Your task to perform on an android device: Go to Maps Image 0: 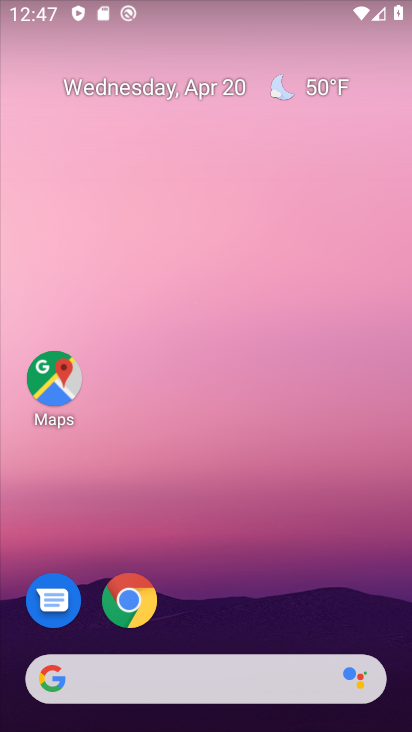
Step 0: click (46, 391)
Your task to perform on an android device: Go to Maps Image 1: 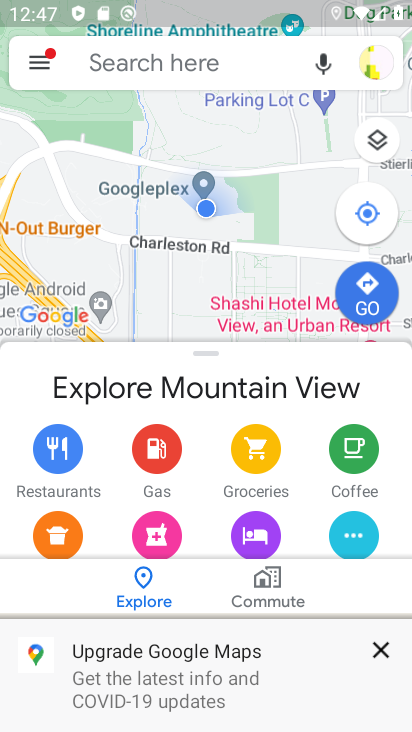
Step 1: task complete